Your task to perform on an android device: Open wifi settings Image 0: 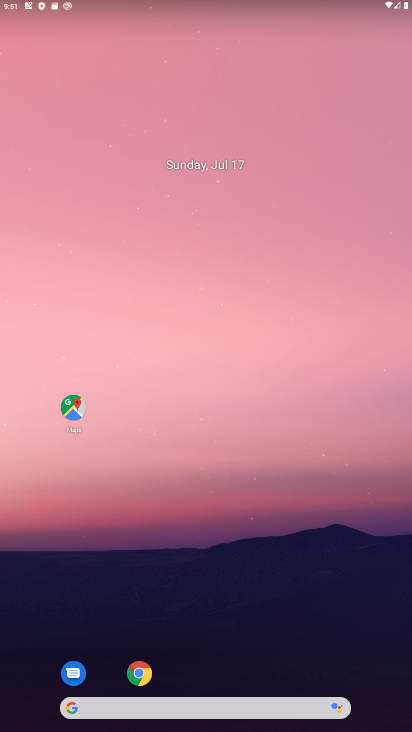
Step 0: drag from (206, 669) to (211, 138)
Your task to perform on an android device: Open wifi settings Image 1: 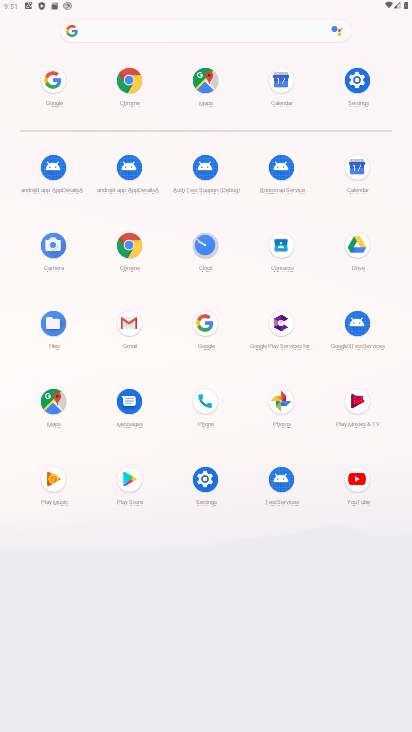
Step 1: click (354, 79)
Your task to perform on an android device: Open wifi settings Image 2: 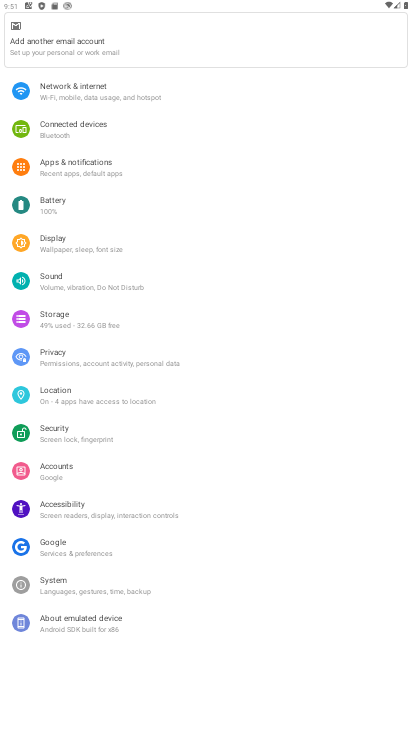
Step 2: click (78, 91)
Your task to perform on an android device: Open wifi settings Image 3: 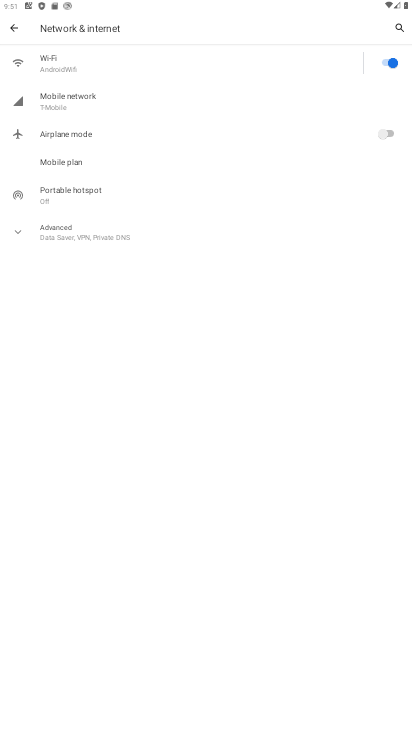
Step 3: click (99, 68)
Your task to perform on an android device: Open wifi settings Image 4: 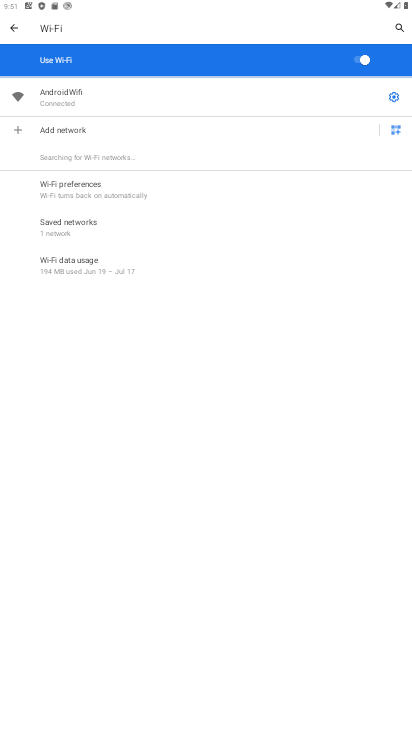
Step 4: click (353, 103)
Your task to perform on an android device: Open wifi settings Image 5: 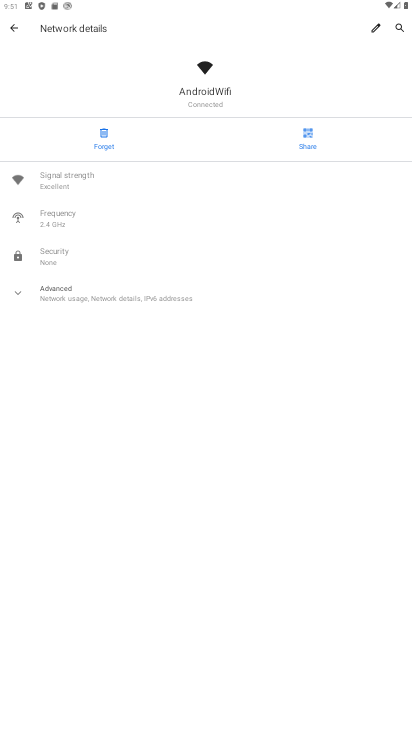
Step 5: task complete